Your task to perform on an android device: change notifications settings Image 0: 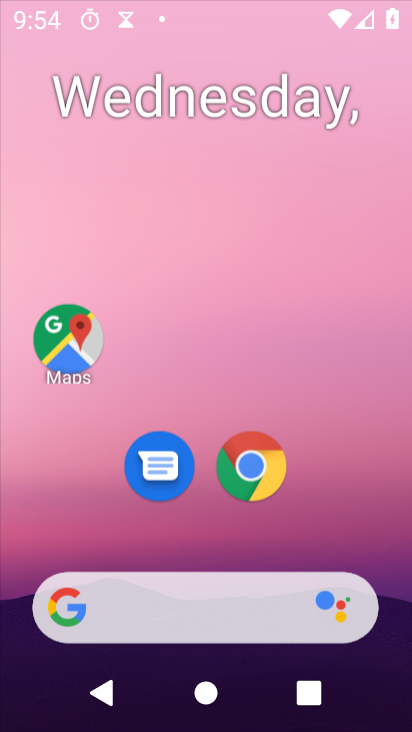
Step 0: drag from (253, 542) to (89, 70)
Your task to perform on an android device: change notifications settings Image 1: 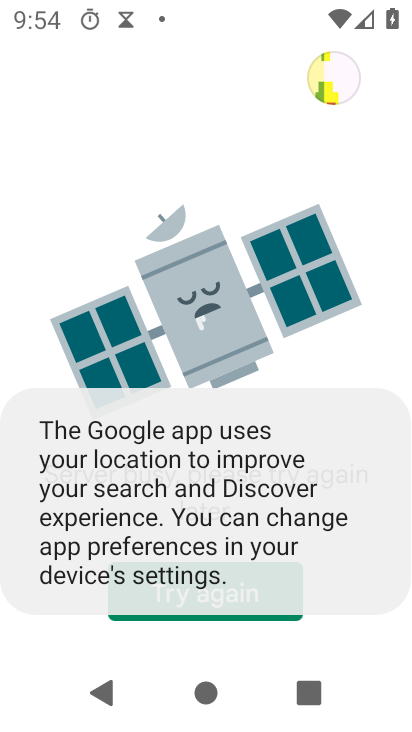
Step 1: press home button
Your task to perform on an android device: change notifications settings Image 2: 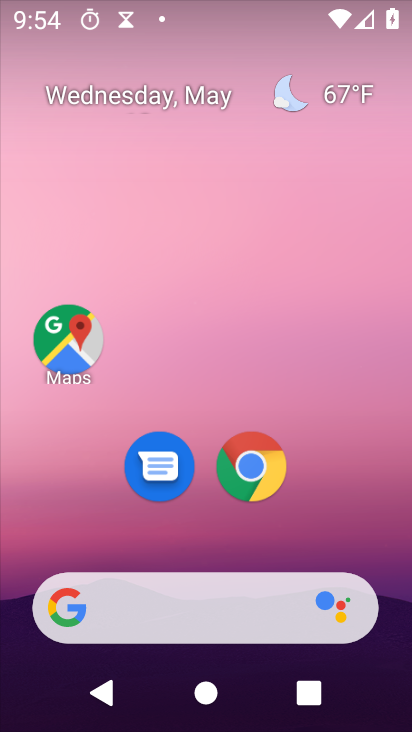
Step 2: drag from (220, 537) to (75, 4)
Your task to perform on an android device: change notifications settings Image 3: 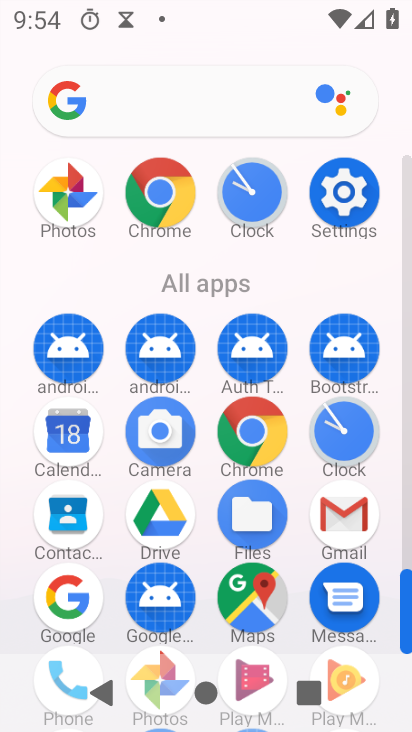
Step 3: click (346, 205)
Your task to perform on an android device: change notifications settings Image 4: 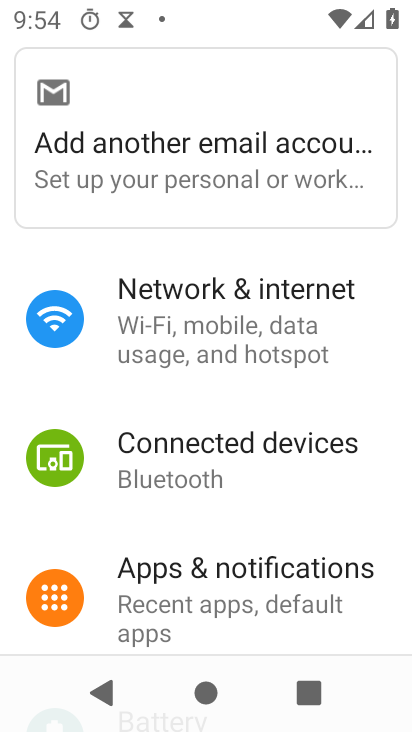
Step 4: click (231, 597)
Your task to perform on an android device: change notifications settings Image 5: 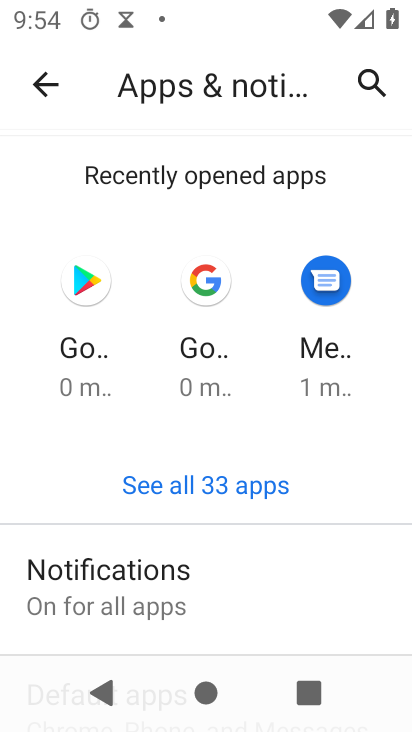
Step 5: click (148, 605)
Your task to perform on an android device: change notifications settings Image 6: 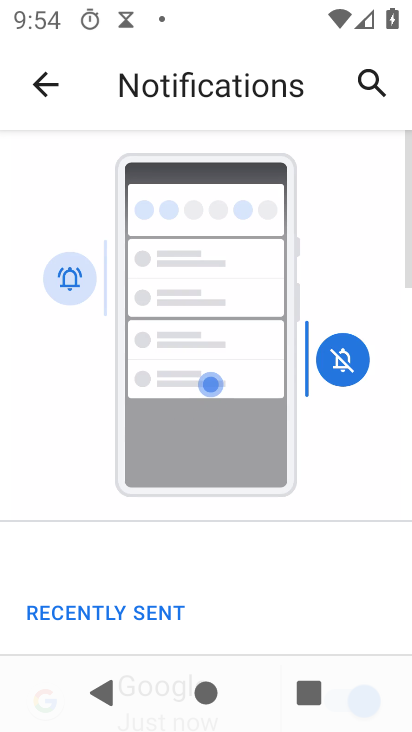
Step 6: drag from (140, 626) to (134, 300)
Your task to perform on an android device: change notifications settings Image 7: 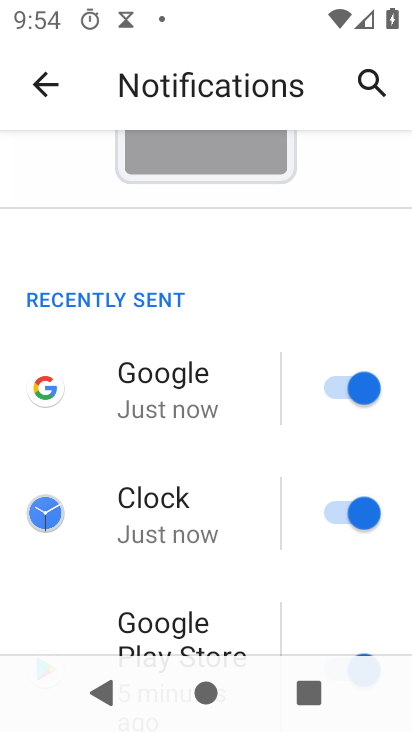
Step 7: drag from (195, 592) to (168, 227)
Your task to perform on an android device: change notifications settings Image 8: 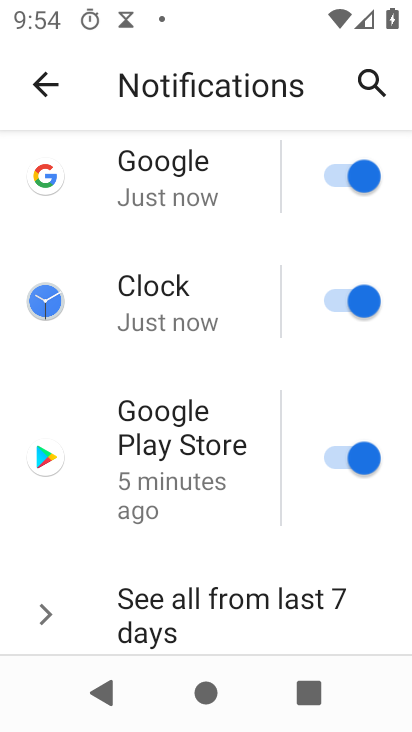
Step 8: drag from (204, 549) to (218, 193)
Your task to perform on an android device: change notifications settings Image 9: 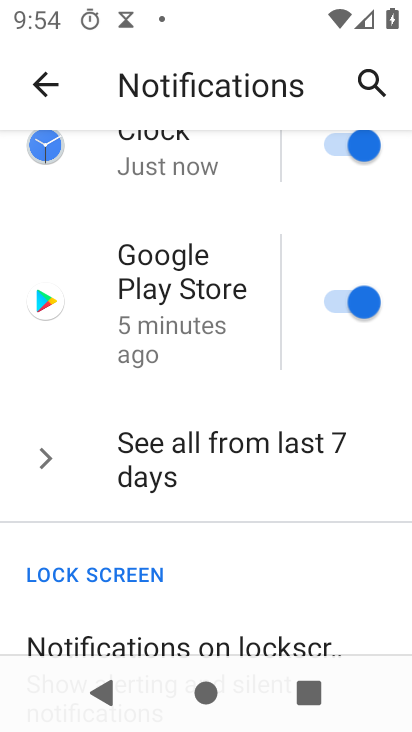
Step 9: drag from (196, 628) to (191, 225)
Your task to perform on an android device: change notifications settings Image 10: 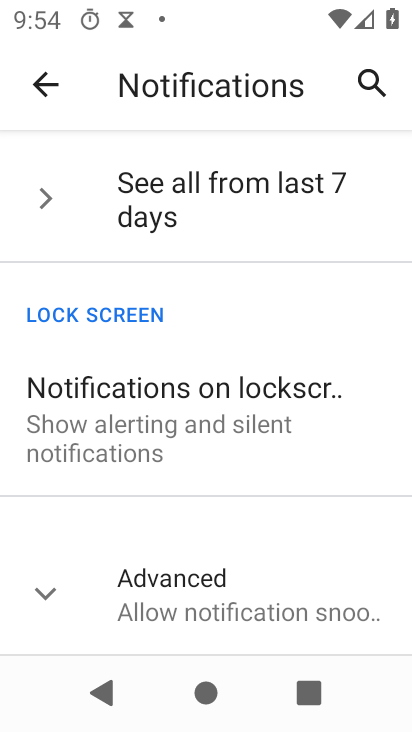
Step 10: click (146, 434)
Your task to perform on an android device: change notifications settings Image 11: 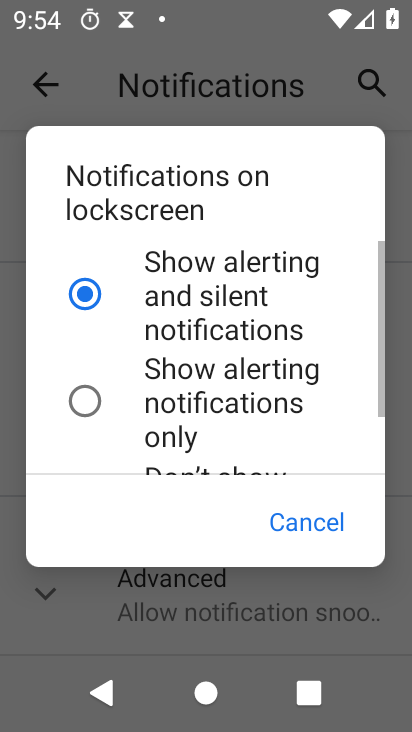
Step 11: click (99, 408)
Your task to perform on an android device: change notifications settings Image 12: 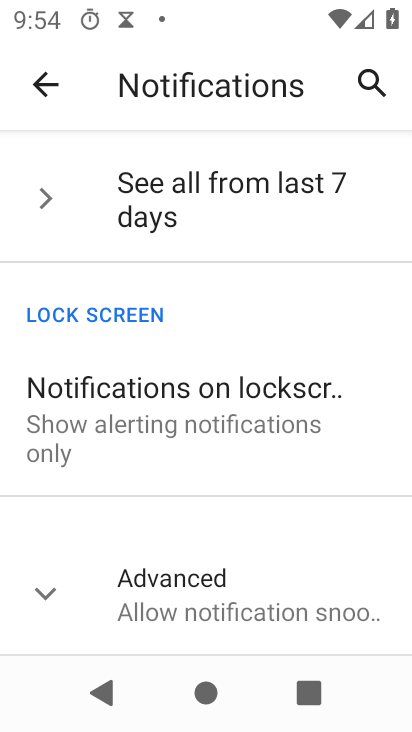
Step 12: task complete